Your task to perform on an android device: Open Youtube and go to the subscriptions tab Image 0: 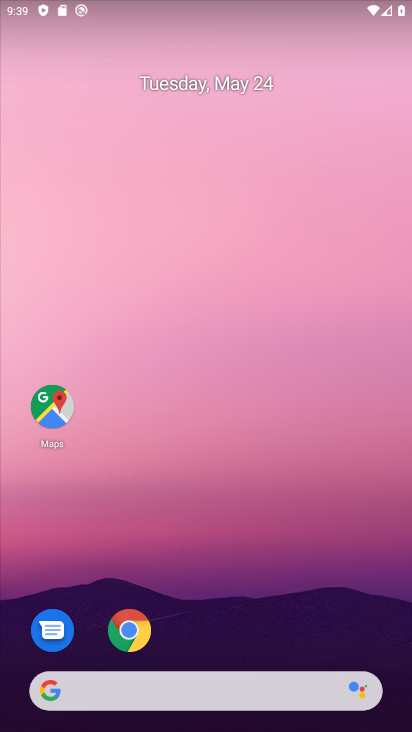
Step 0: drag from (224, 643) to (222, 64)
Your task to perform on an android device: Open Youtube and go to the subscriptions tab Image 1: 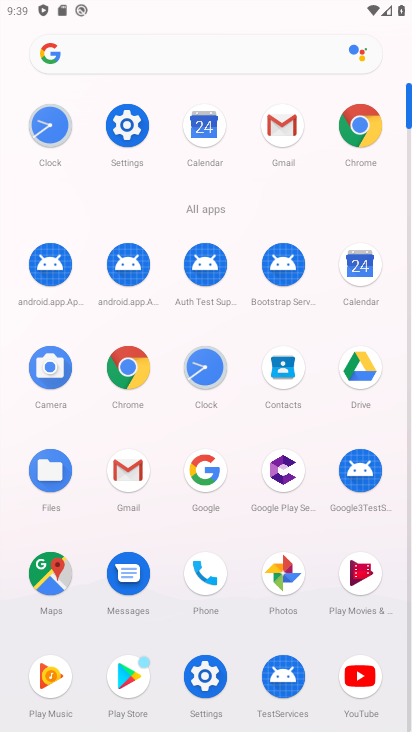
Step 1: click (352, 672)
Your task to perform on an android device: Open Youtube and go to the subscriptions tab Image 2: 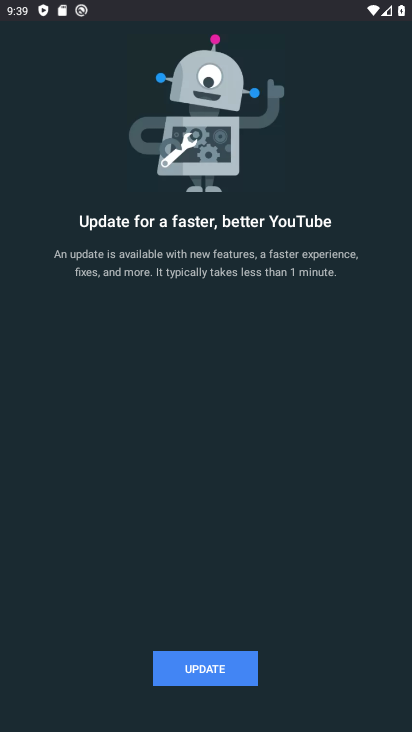
Step 2: click (192, 664)
Your task to perform on an android device: Open Youtube and go to the subscriptions tab Image 3: 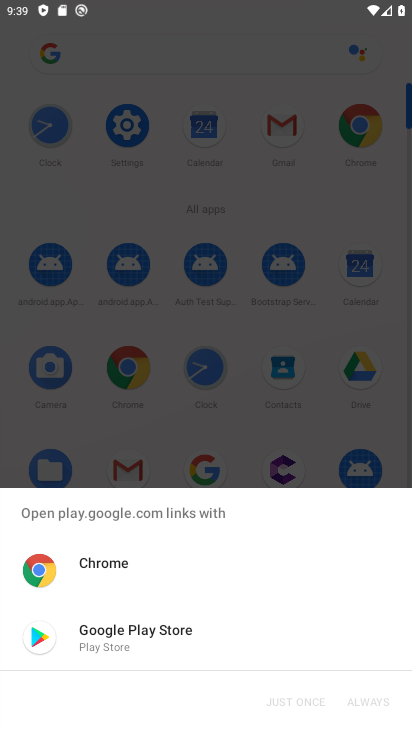
Step 3: click (116, 632)
Your task to perform on an android device: Open Youtube and go to the subscriptions tab Image 4: 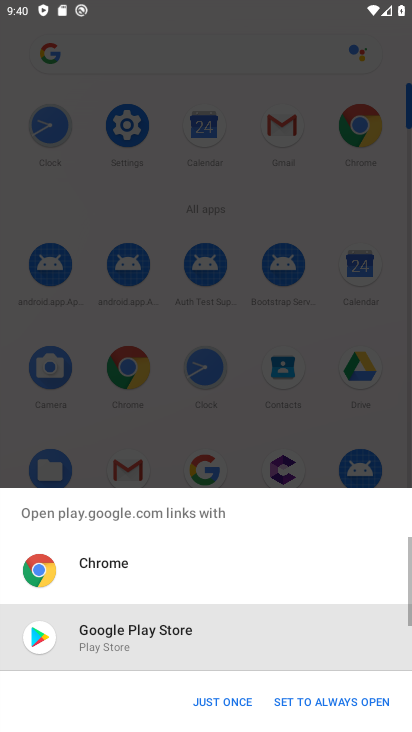
Step 4: click (205, 700)
Your task to perform on an android device: Open Youtube and go to the subscriptions tab Image 5: 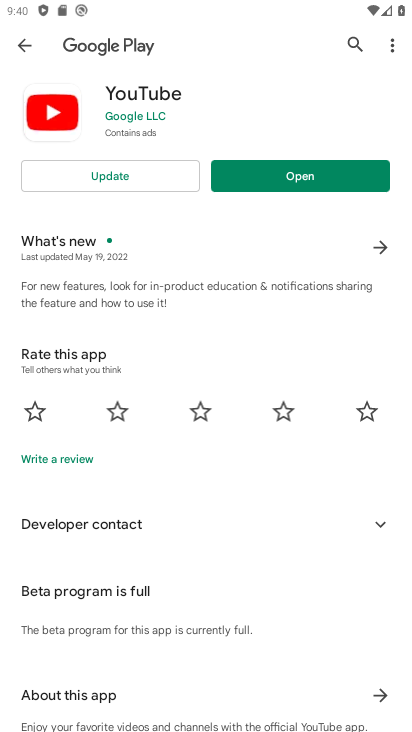
Step 5: click (108, 170)
Your task to perform on an android device: Open Youtube and go to the subscriptions tab Image 6: 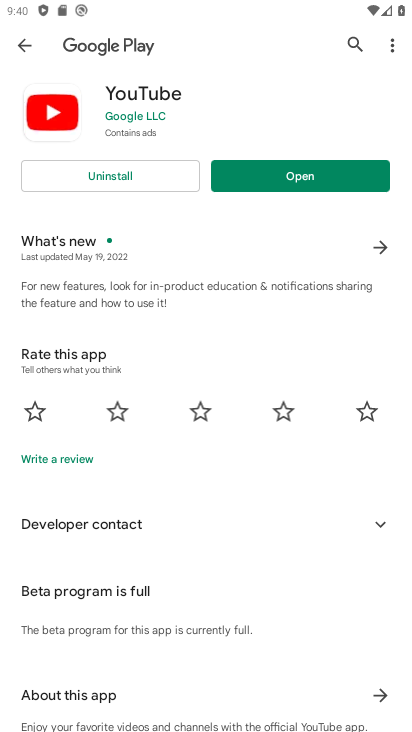
Step 6: click (304, 175)
Your task to perform on an android device: Open Youtube and go to the subscriptions tab Image 7: 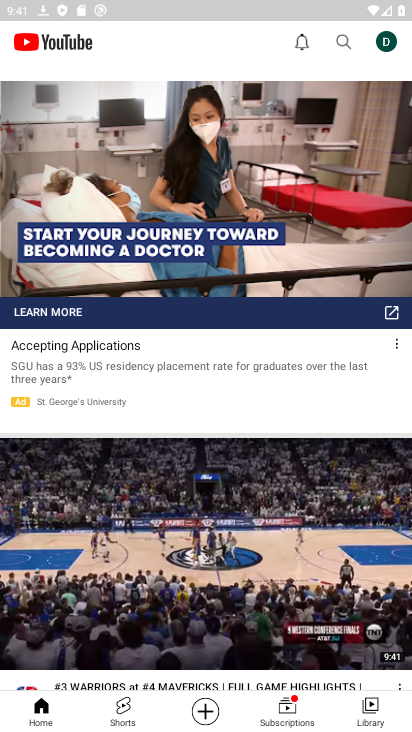
Step 7: task complete